Your task to perform on an android device: turn pop-ups off in chrome Image 0: 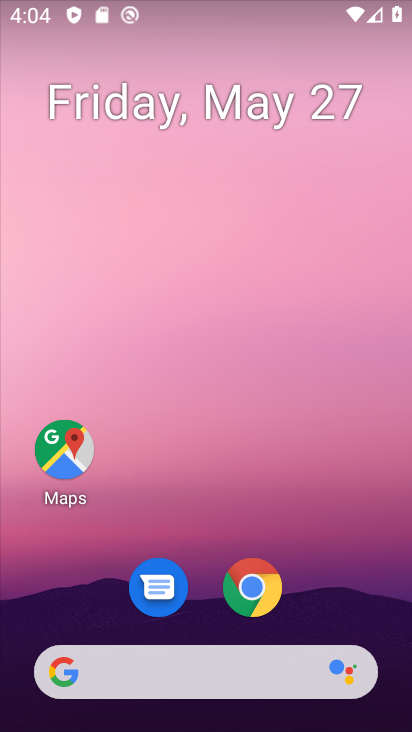
Step 0: drag from (354, 527) to (241, 31)
Your task to perform on an android device: turn pop-ups off in chrome Image 1: 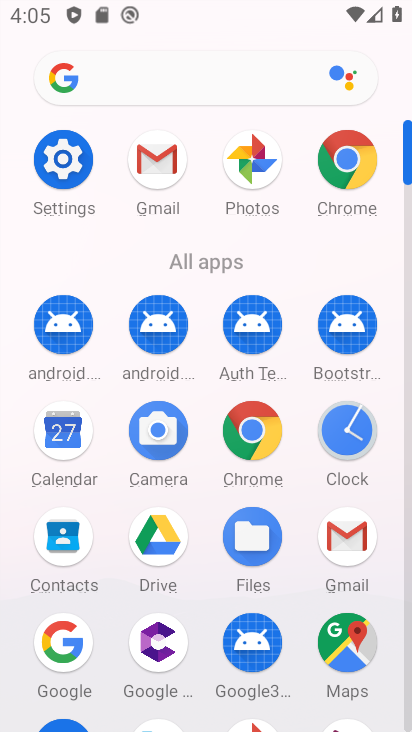
Step 1: click (340, 155)
Your task to perform on an android device: turn pop-ups off in chrome Image 2: 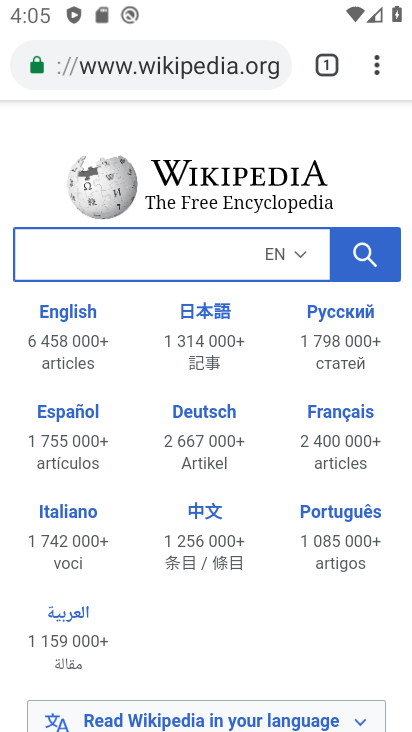
Step 2: drag from (376, 68) to (187, 626)
Your task to perform on an android device: turn pop-ups off in chrome Image 3: 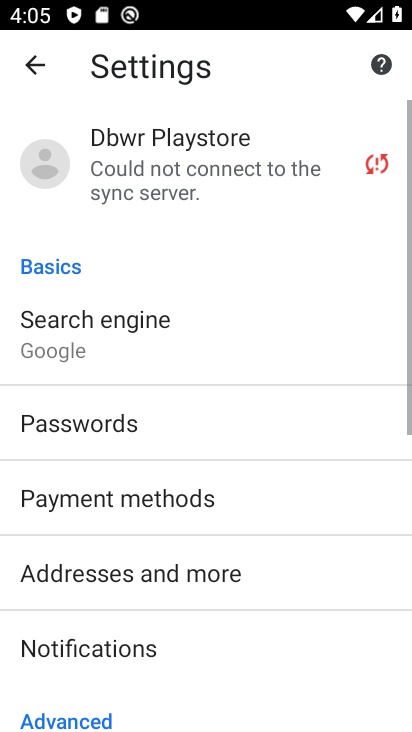
Step 3: drag from (287, 478) to (289, 171)
Your task to perform on an android device: turn pop-ups off in chrome Image 4: 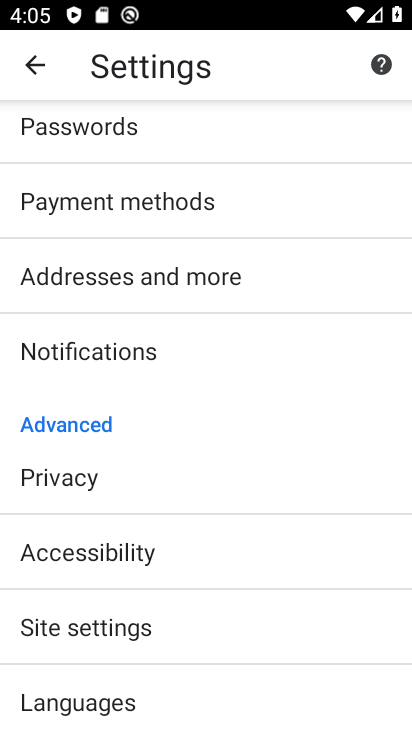
Step 4: drag from (303, 650) to (262, 214)
Your task to perform on an android device: turn pop-ups off in chrome Image 5: 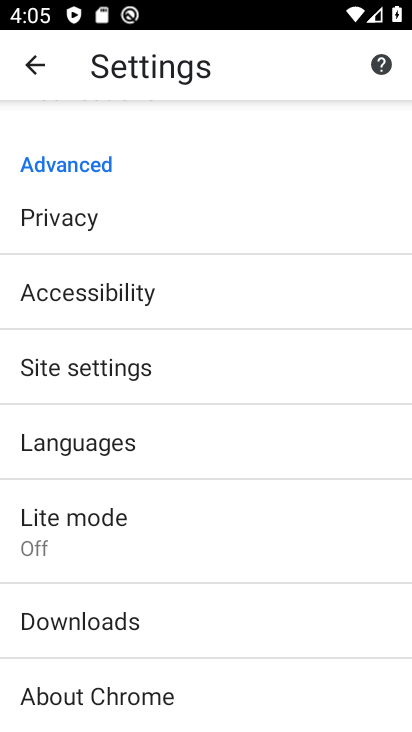
Step 5: drag from (259, 599) to (238, 187)
Your task to perform on an android device: turn pop-ups off in chrome Image 6: 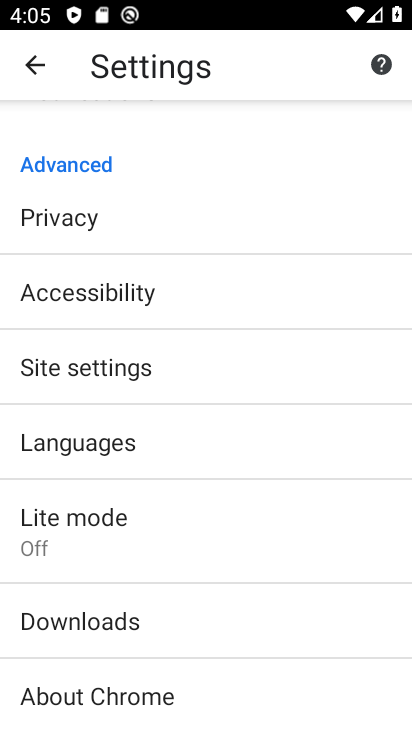
Step 6: drag from (276, 667) to (240, 176)
Your task to perform on an android device: turn pop-ups off in chrome Image 7: 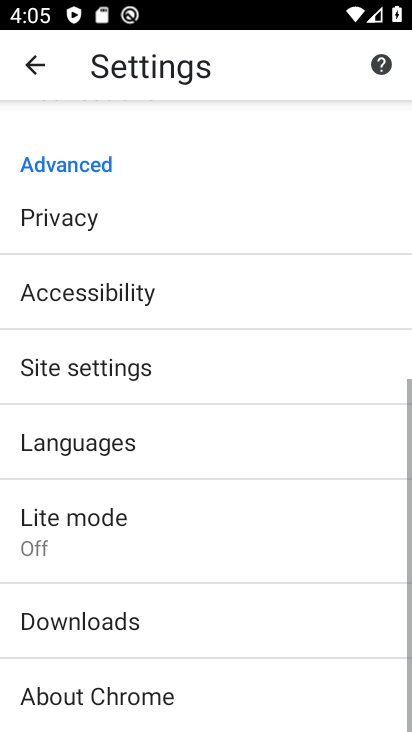
Step 7: drag from (231, 603) to (245, 255)
Your task to perform on an android device: turn pop-ups off in chrome Image 8: 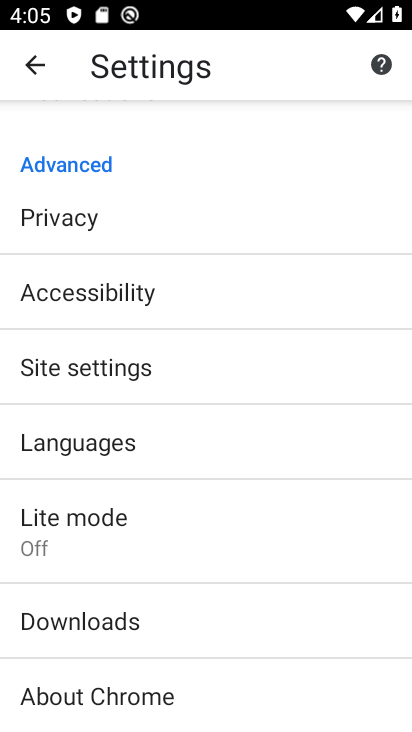
Step 8: click (154, 358)
Your task to perform on an android device: turn pop-ups off in chrome Image 9: 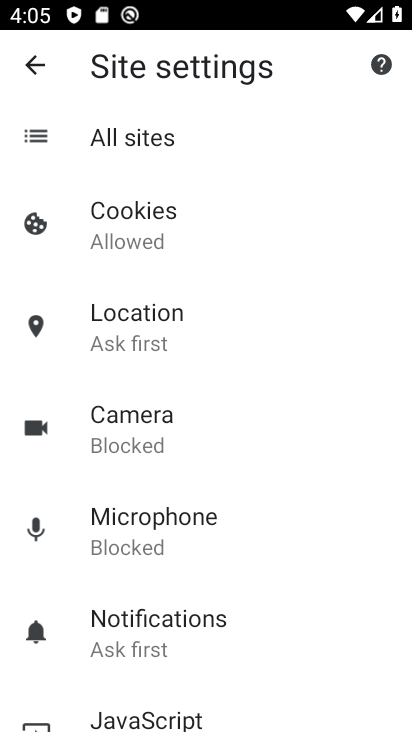
Step 9: drag from (255, 617) to (249, 194)
Your task to perform on an android device: turn pop-ups off in chrome Image 10: 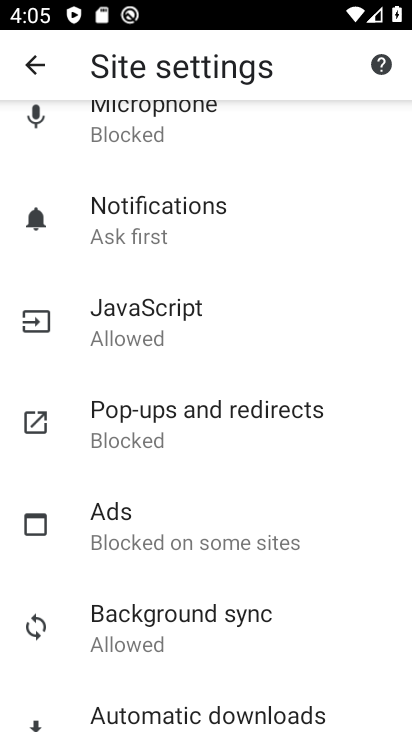
Step 10: click (205, 415)
Your task to perform on an android device: turn pop-ups off in chrome Image 11: 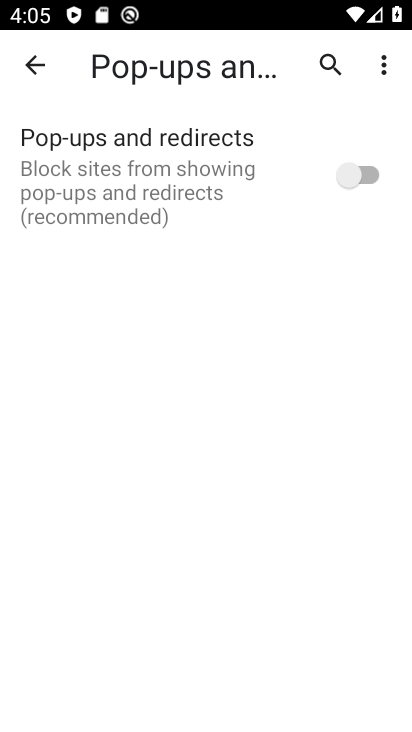
Step 11: click (41, 75)
Your task to perform on an android device: turn pop-ups off in chrome Image 12: 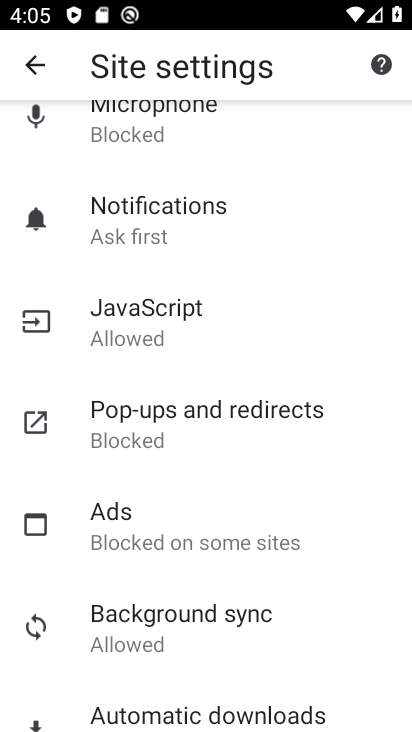
Step 12: task complete